Your task to perform on an android device: choose inbox layout in the gmail app Image 0: 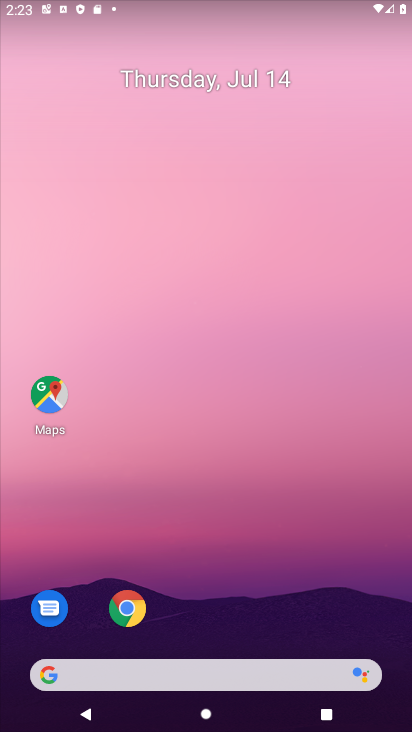
Step 0: drag from (378, 635) to (307, 73)
Your task to perform on an android device: choose inbox layout in the gmail app Image 1: 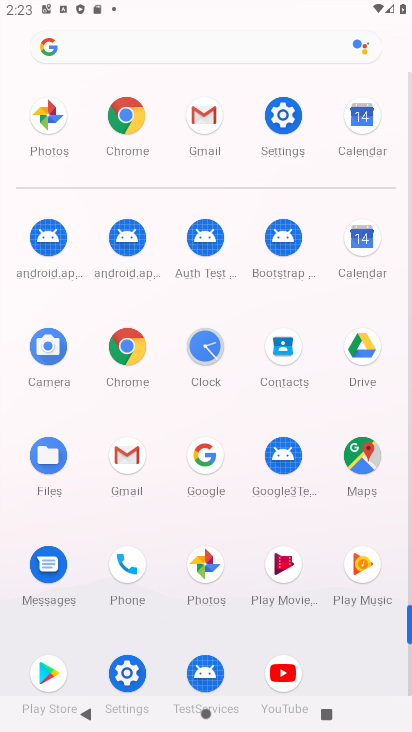
Step 1: click (127, 455)
Your task to perform on an android device: choose inbox layout in the gmail app Image 2: 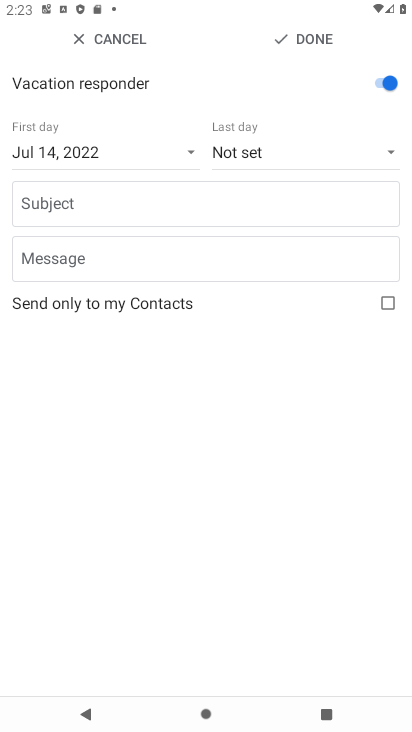
Step 2: press back button
Your task to perform on an android device: choose inbox layout in the gmail app Image 3: 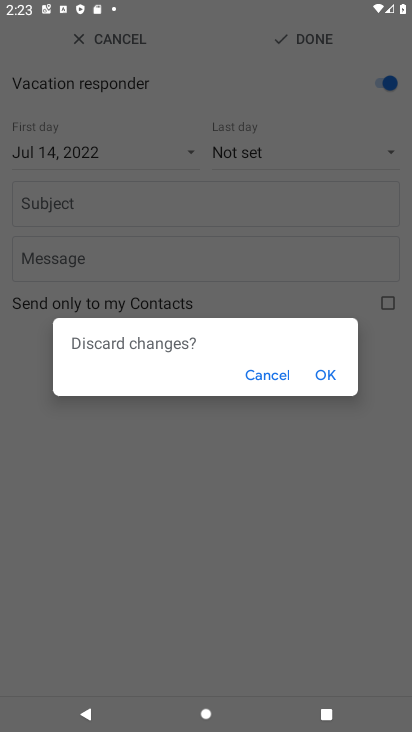
Step 3: click (331, 373)
Your task to perform on an android device: choose inbox layout in the gmail app Image 4: 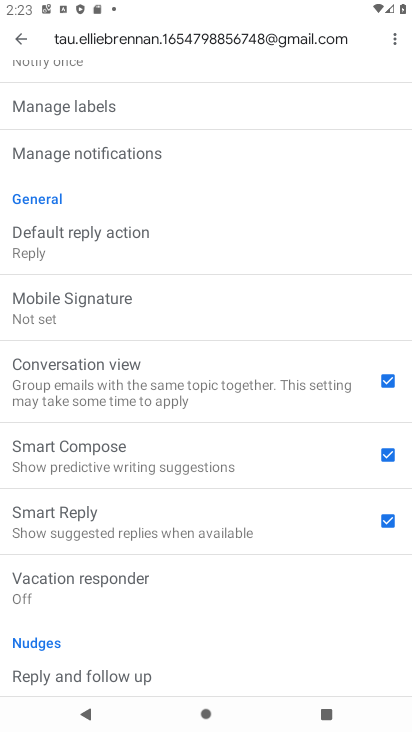
Step 4: drag from (242, 196) to (227, 483)
Your task to perform on an android device: choose inbox layout in the gmail app Image 5: 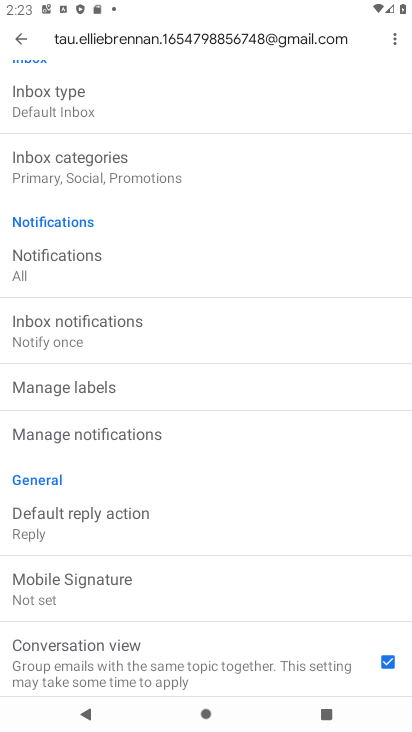
Step 5: drag from (269, 224) to (266, 532)
Your task to perform on an android device: choose inbox layout in the gmail app Image 6: 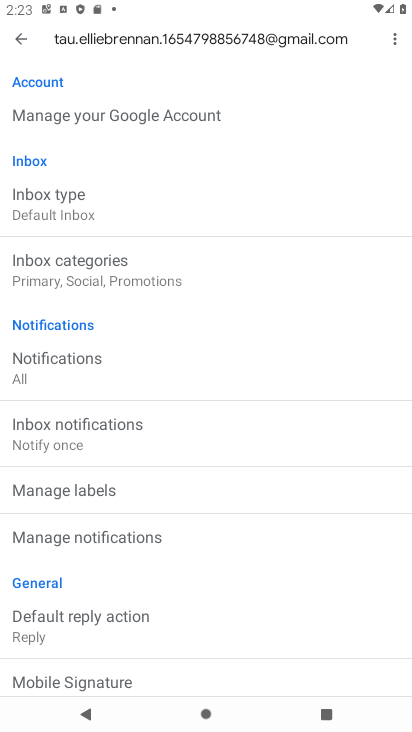
Step 6: click (41, 206)
Your task to perform on an android device: choose inbox layout in the gmail app Image 7: 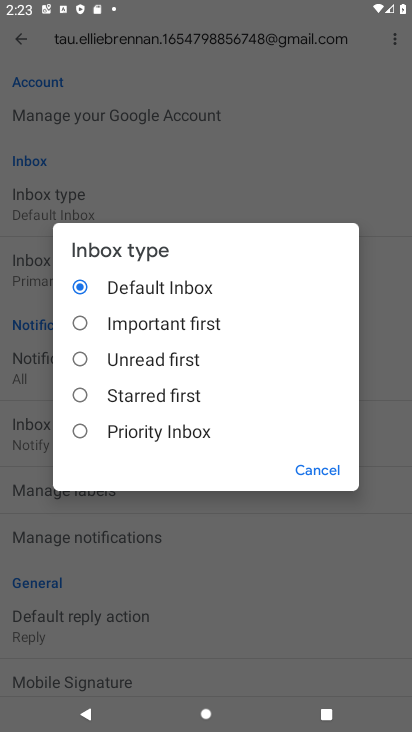
Step 7: click (77, 394)
Your task to perform on an android device: choose inbox layout in the gmail app Image 8: 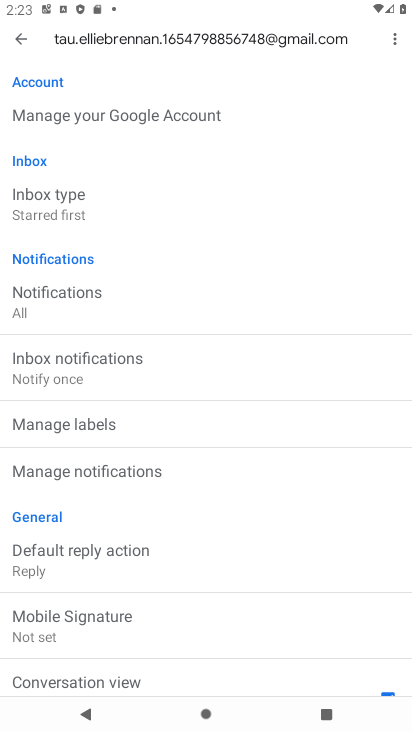
Step 8: task complete